Your task to perform on an android device: turn notification dots off Image 0: 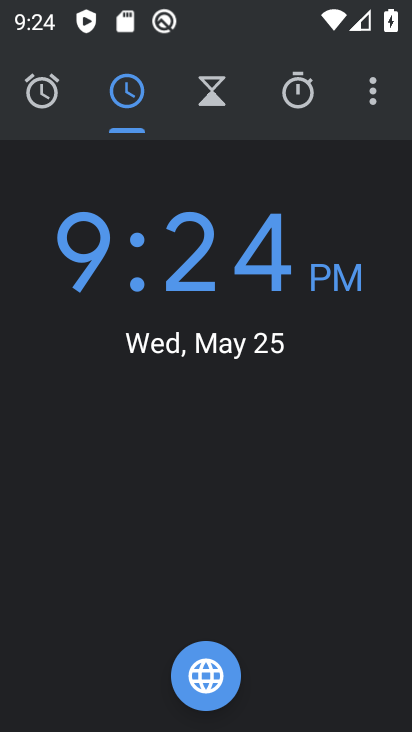
Step 0: press back button
Your task to perform on an android device: turn notification dots off Image 1: 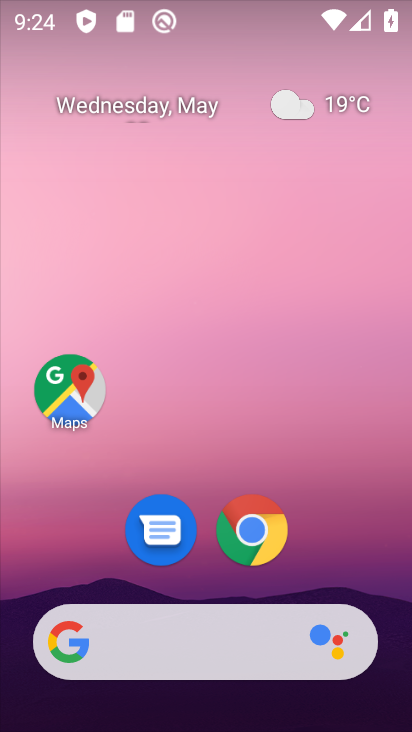
Step 1: drag from (238, 704) to (96, 92)
Your task to perform on an android device: turn notification dots off Image 2: 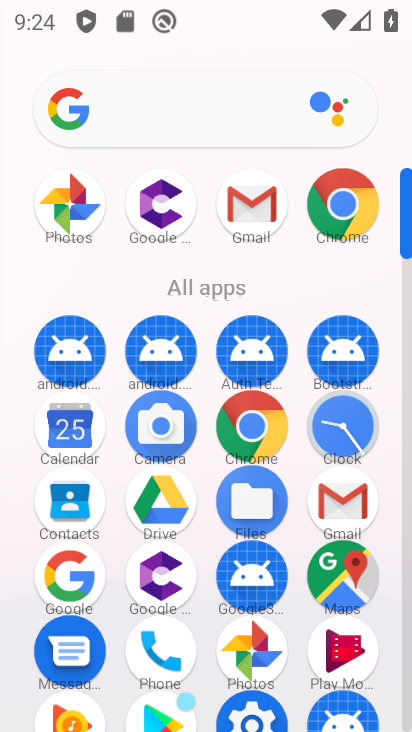
Step 2: drag from (275, 431) to (253, 218)
Your task to perform on an android device: turn notification dots off Image 3: 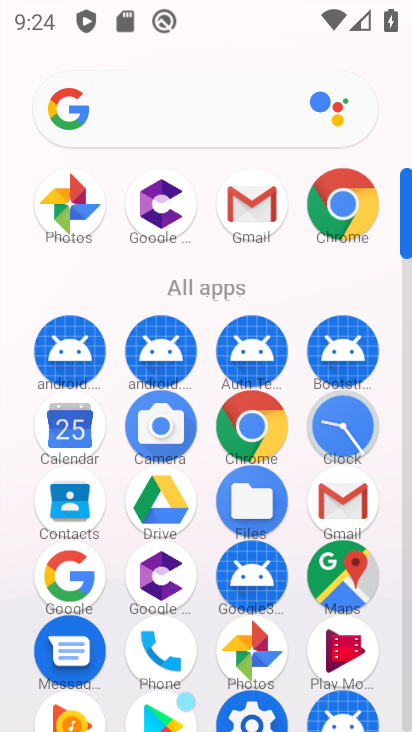
Step 3: drag from (285, 543) to (269, 201)
Your task to perform on an android device: turn notification dots off Image 4: 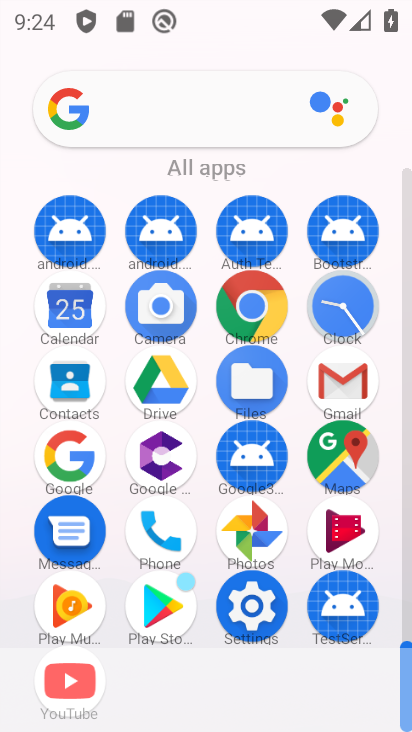
Step 4: drag from (276, 406) to (260, 197)
Your task to perform on an android device: turn notification dots off Image 5: 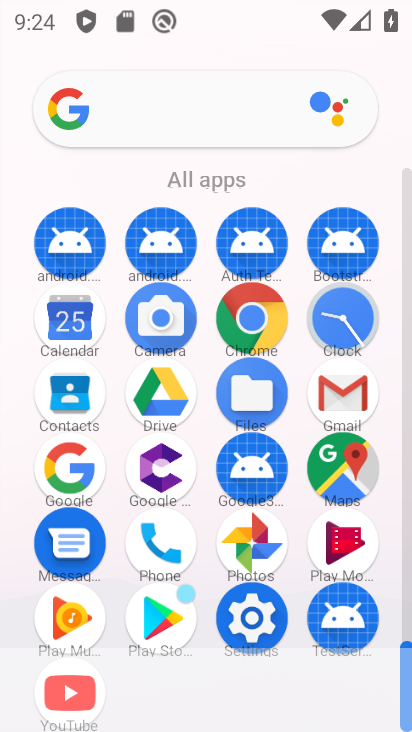
Step 5: click (250, 615)
Your task to perform on an android device: turn notification dots off Image 6: 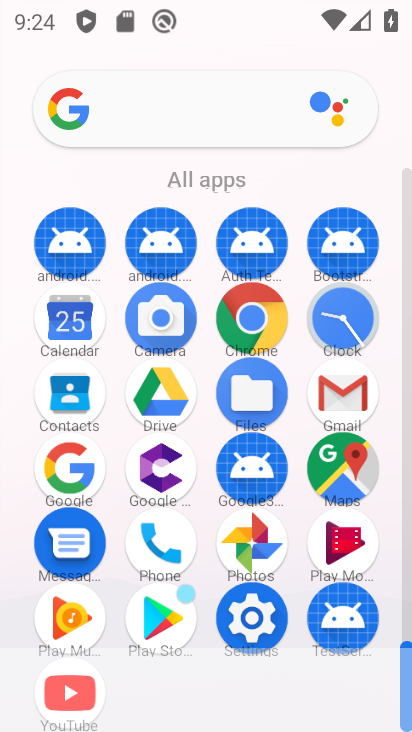
Step 6: click (250, 615)
Your task to perform on an android device: turn notification dots off Image 7: 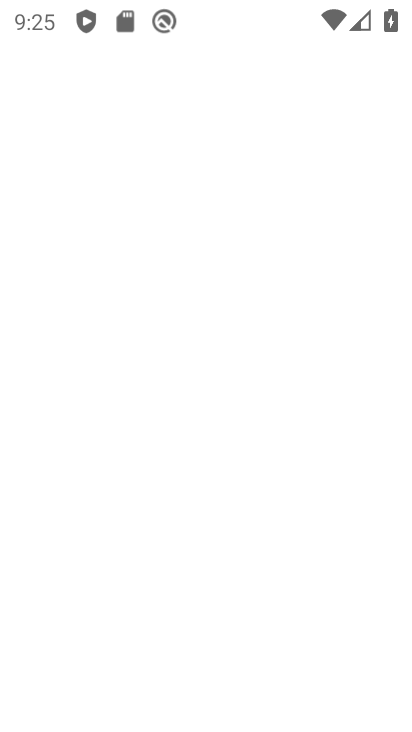
Step 7: click (251, 616)
Your task to perform on an android device: turn notification dots off Image 8: 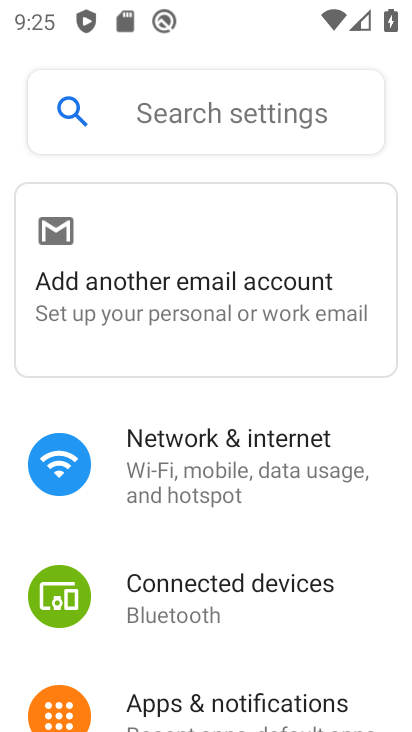
Step 8: drag from (218, 561) to (169, 227)
Your task to perform on an android device: turn notification dots off Image 9: 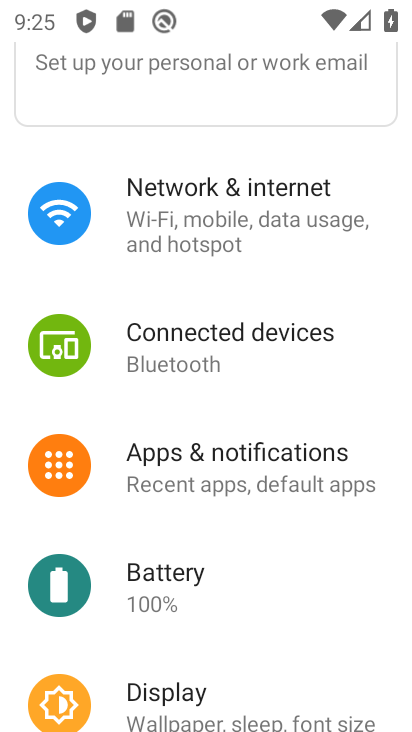
Step 9: drag from (192, 380) to (204, 235)
Your task to perform on an android device: turn notification dots off Image 10: 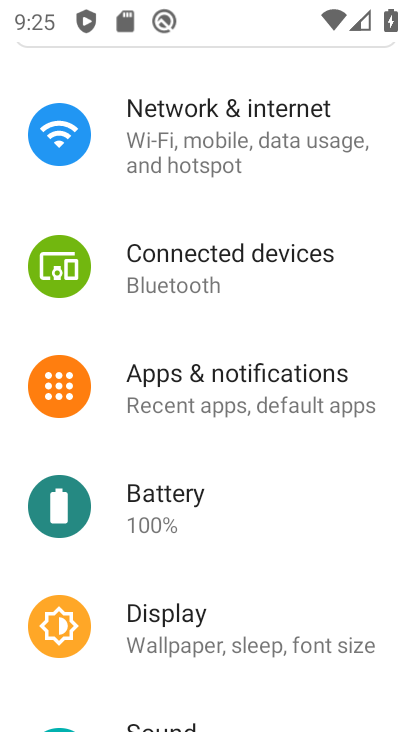
Step 10: click (193, 382)
Your task to perform on an android device: turn notification dots off Image 11: 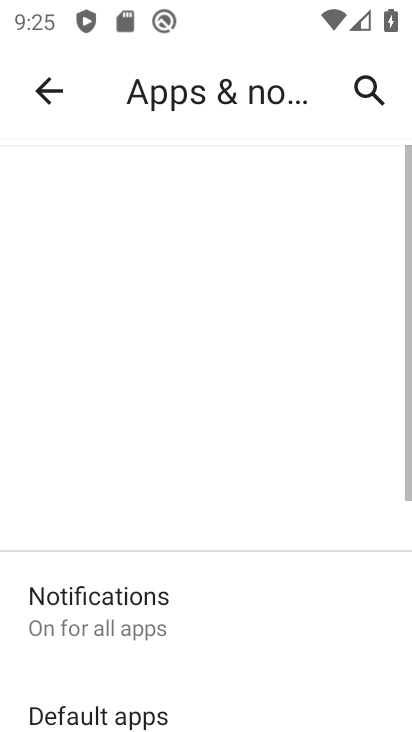
Step 11: drag from (115, 448) to (75, 137)
Your task to perform on an android device: turn notification dots off Image 12: 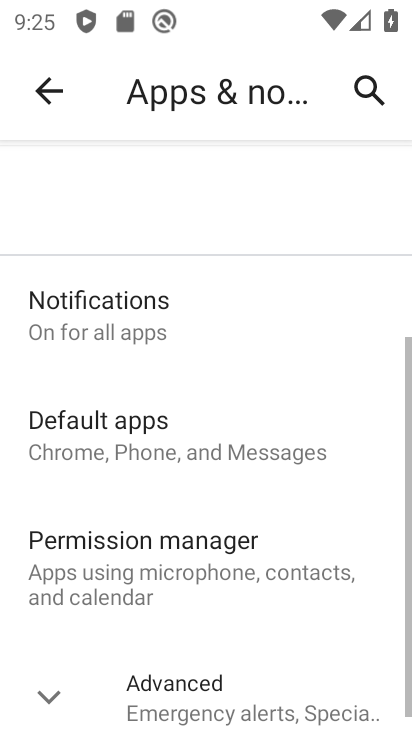
Step 12: click (147, 35)
Your task to perform on an android device: turn notification dots off Image 13: 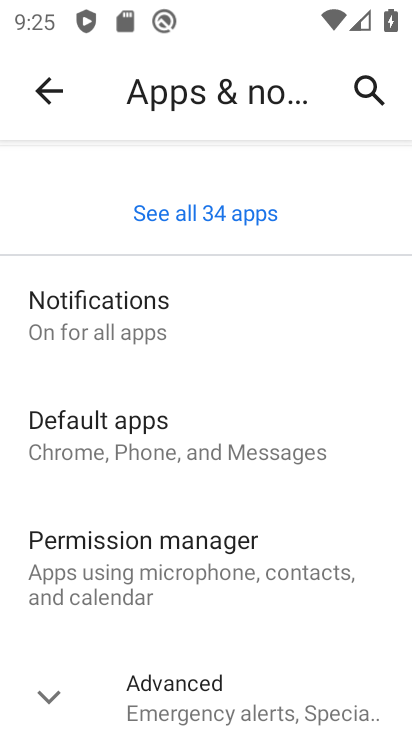
Step 13: click (80, 322)
Your task to perform on an android device: turn notification dots off Image 14: 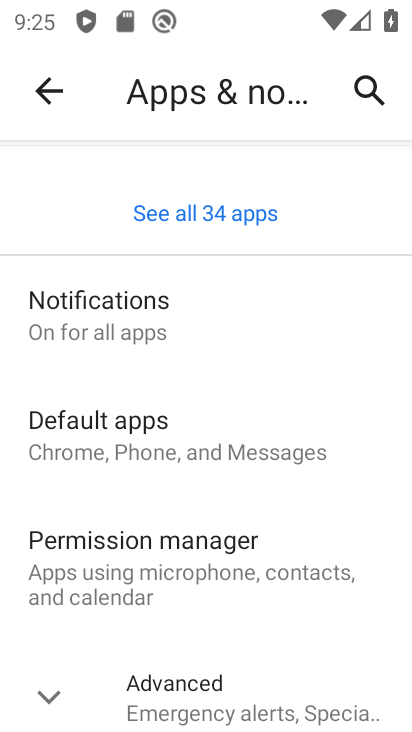
Step 14: click (80, 322)
Your task to perform on an android device: turn notification dots off Image 15: 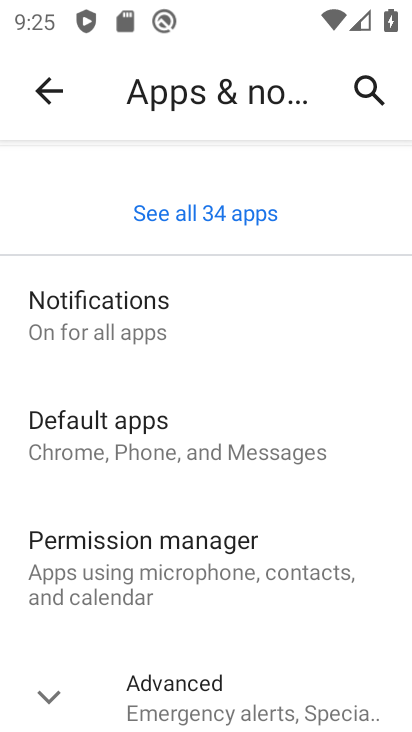
Step 15: click (80, 322)
Your task to perform on an android device: turn notification dots off Image 16: 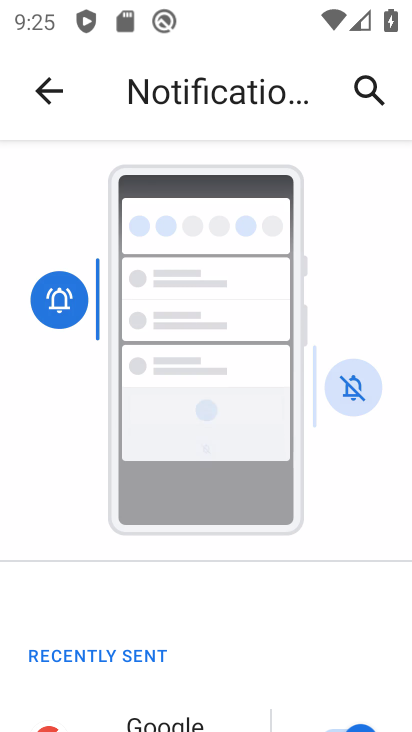
Step 16: drag from (269, 669) to (257, 164)
Your task to perform on an android device: turn notification dots off Image 17: 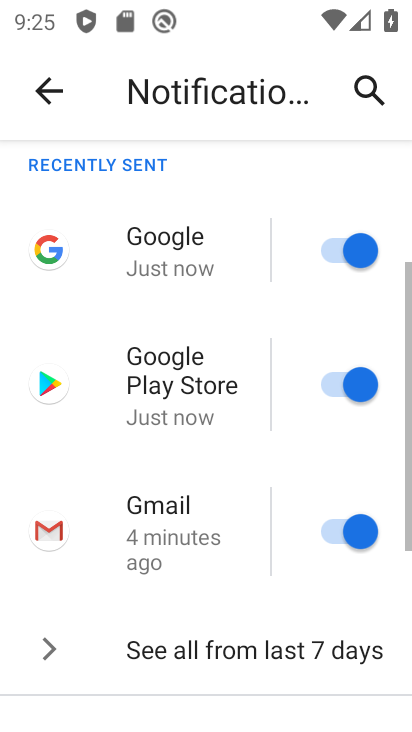
Step 17: drag from (261, 473) to (257, 133)
Your task to perform on an android device: turn notification dots off Image 18: 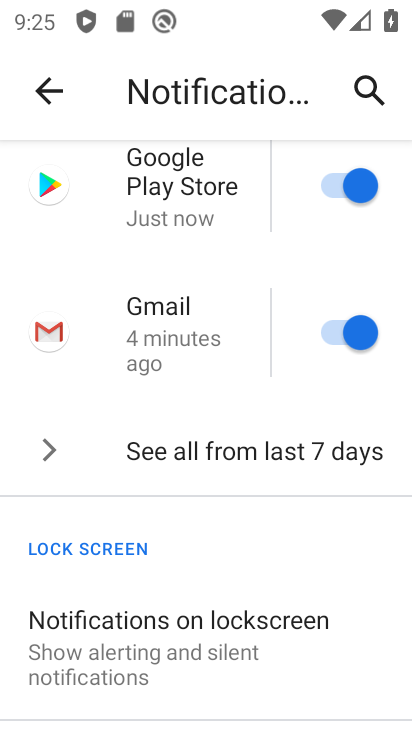
Step 18: drag from (161, 606) to (124, 272)
Your task to perform on an android device: turn notification dots off Image 19: 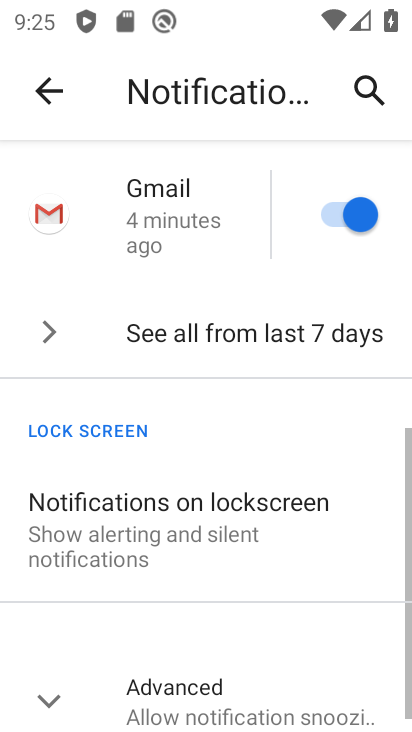
Step 19: drag from (176, 516) to (176, 276)
Your task to perform on an android device: turn notification dots off Image 20: 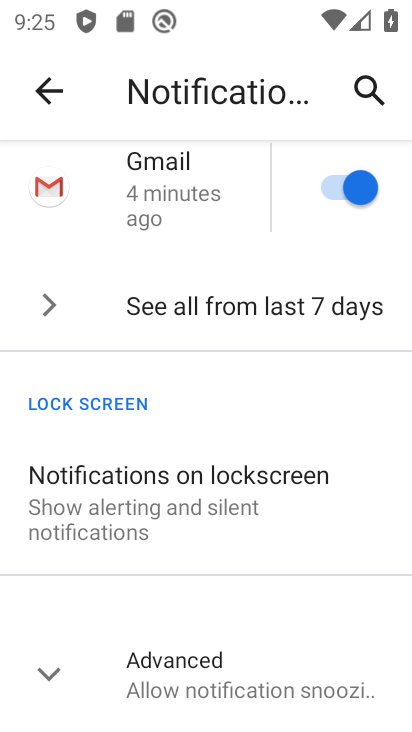
Step 20: click (195, 684)
Your task to perform on an android device: turn notification dots off Image 21: 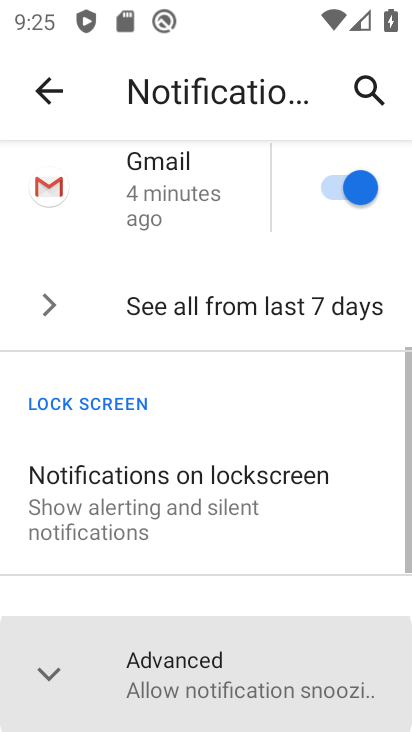
Step 21: click (194, 685)
Your task to perform on an android device: turn notification dots off Image 22: 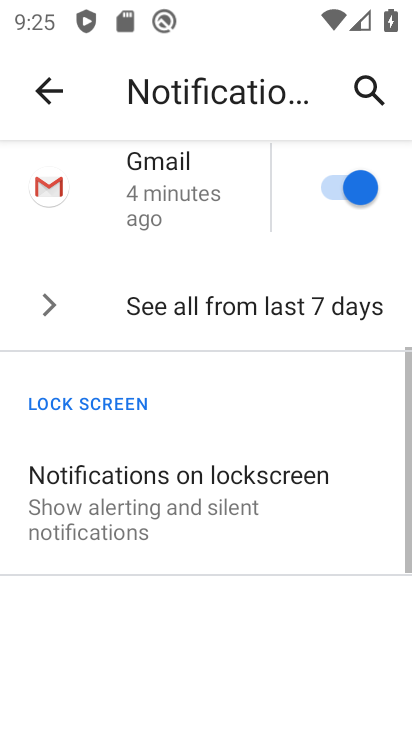
Step 22: click (194, 685)
Your task to perform on an android device: turn notification dots off Image 23: 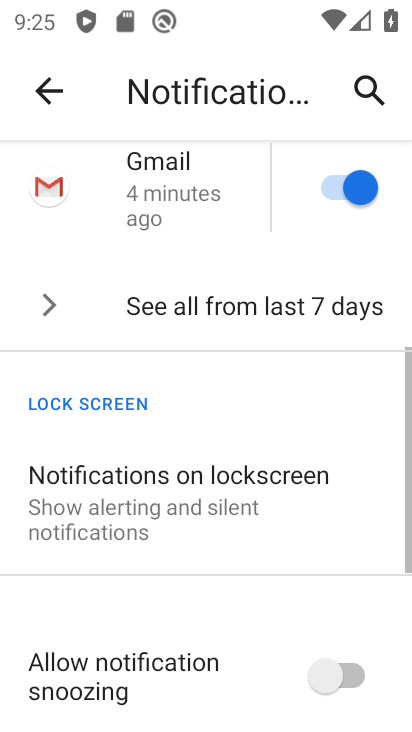
Step 23: click (198, 144)
Your task to perform on an android device: turn notification dots off Image 24: 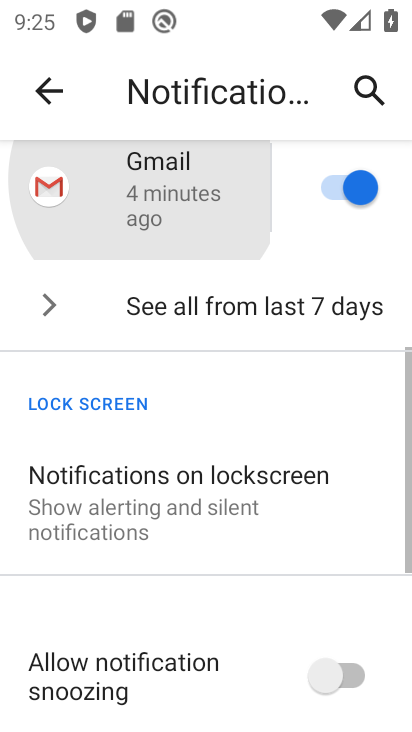
Step 24: drag from (264, 551) to (264, 185)
Your task to perform on an android device: turn notification dots off Image 25: 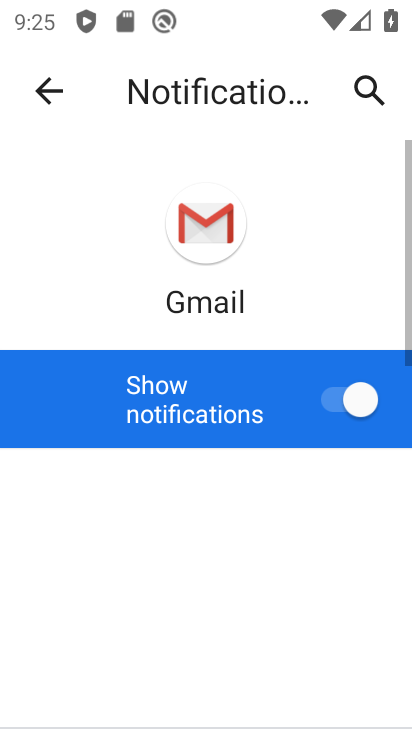
Step 25: drag from (244, 366) to (223, 50)
Your task to perform on an android device: turn notification dots off Image 26: 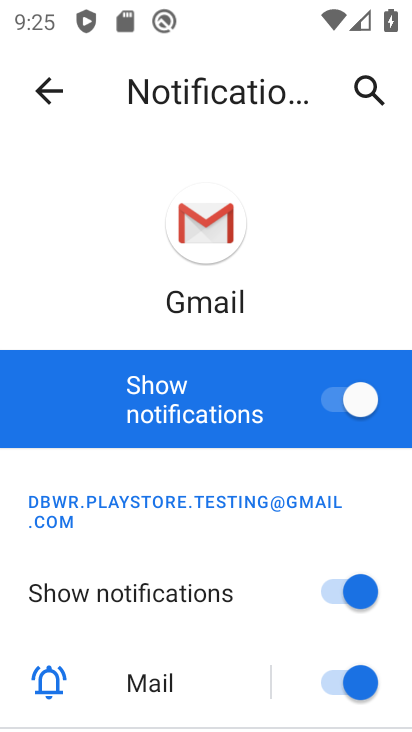
Step 26: click (46, 88)
Your task to perform on an android device: turn notification dots off Image 27: 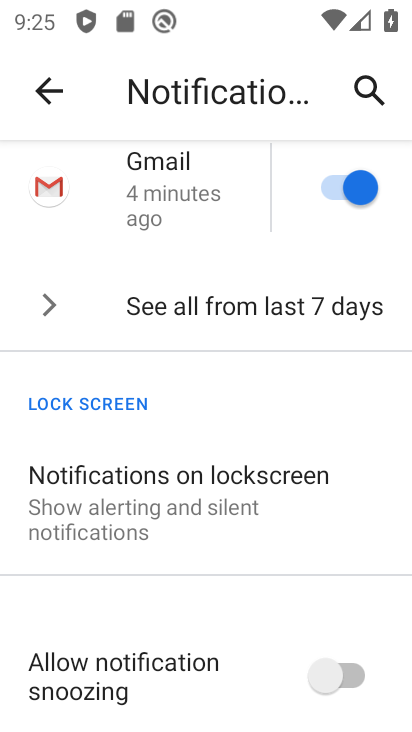
Step 27: drag from (209, 535) to (111, 115)
Your task to perform on an android device: turn notification dots off Image 28: 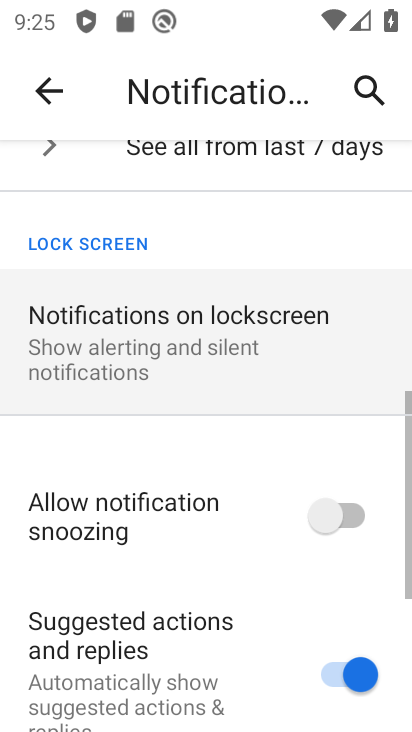
Step 28: drag from (120, 470) to (139, 124)
Your task to perform on an android device: turn notification dots off Image 29: 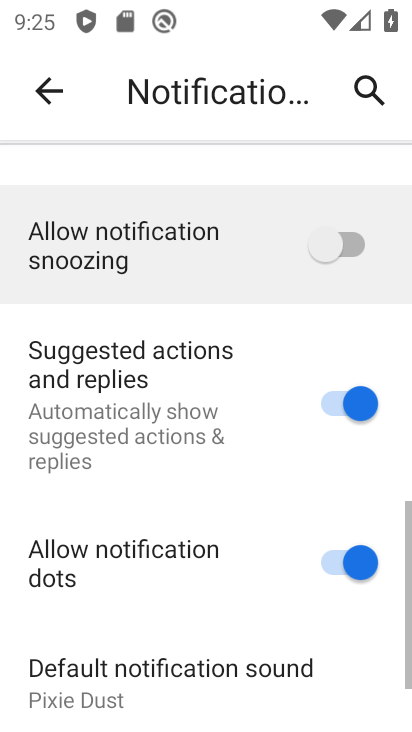
Step 29: drag from (186, 448) to (243, 0)
Your task to perform on an android device: turn notification dots off Image 30: 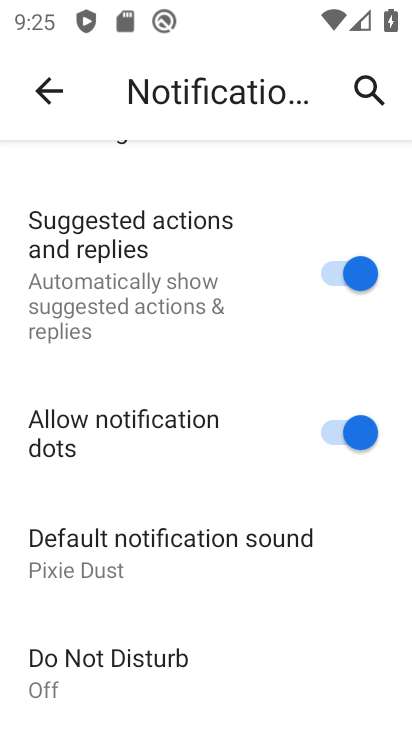
Step 30: click (34, 104)
Your task to perform on an android device: turn notification dots off Image 31: 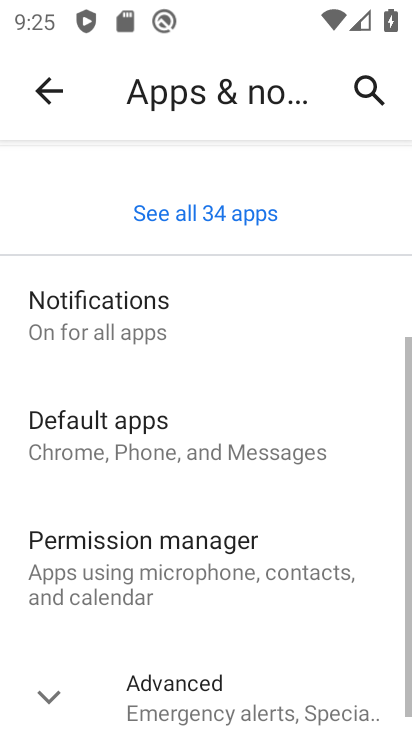
Step 31: click (371, 435)
Your task to perform on an android device: turn notification dots off Image 32: 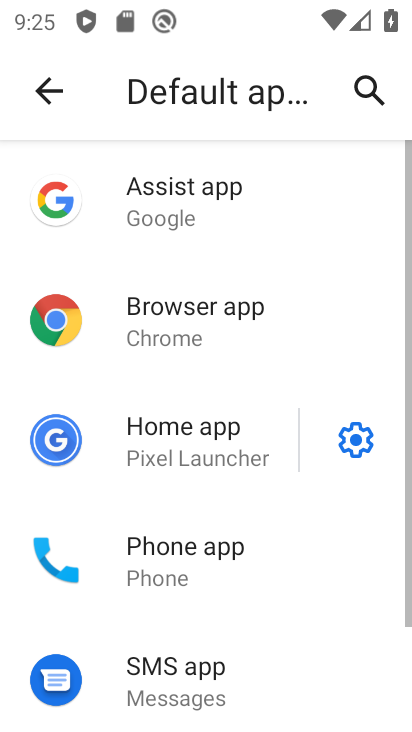
Step 32: click (59, 87)
Your task to perform on an android device: turn notification dots off Image 33: 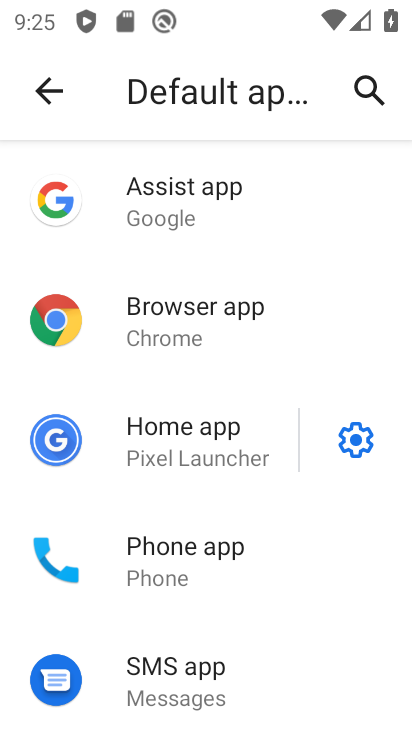
Step 33: click (35, 106)
Your task to perform on an android device: turn notification dots off Image 34: 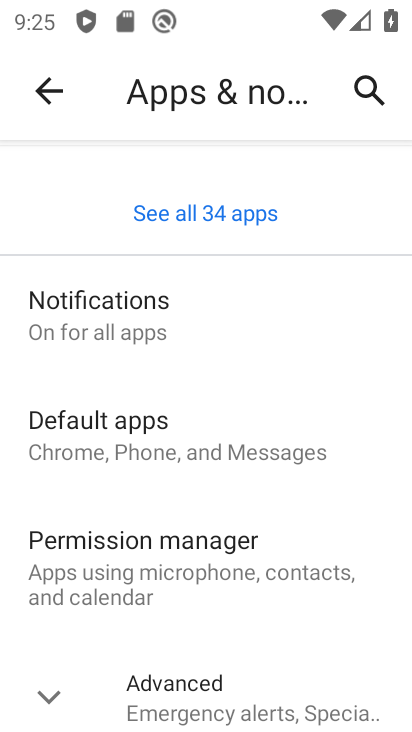
Step 34: drag from (190, 605) to (186, 285)
Your task to perform on an android device: turn notification dots off Image 35: 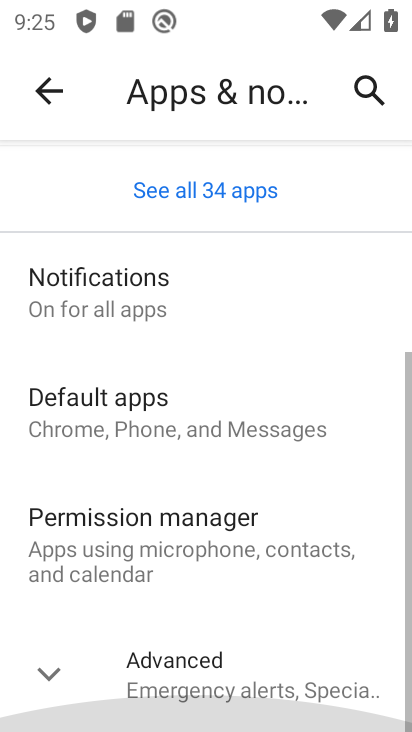
Step 35: drag from (213, 446) to (192, 264)
Your task to perform on an android device: turn notification dots off Image 36: 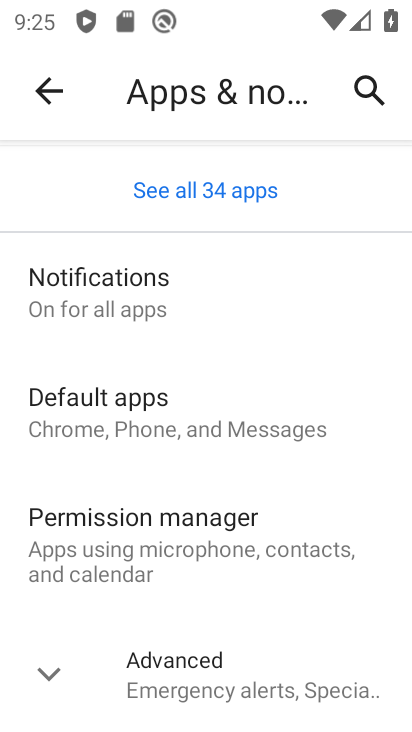
Step 36: click (80, 295)
Your task to perform on an android device: turn notification dots off Image 37: 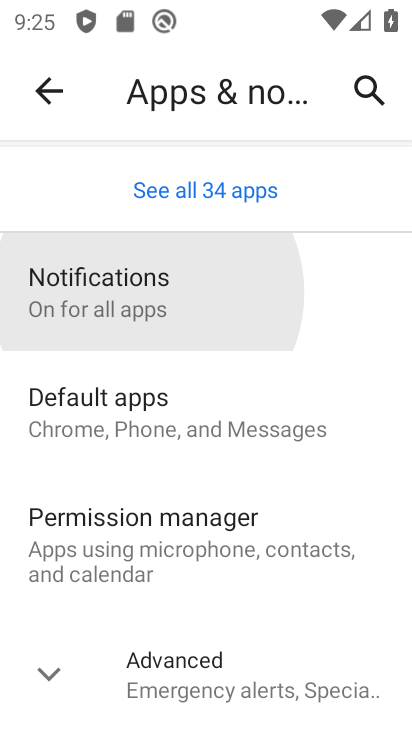
Step 37: click (82, 295)
Your task to perform on an android device: turn notification dots off Image 38: 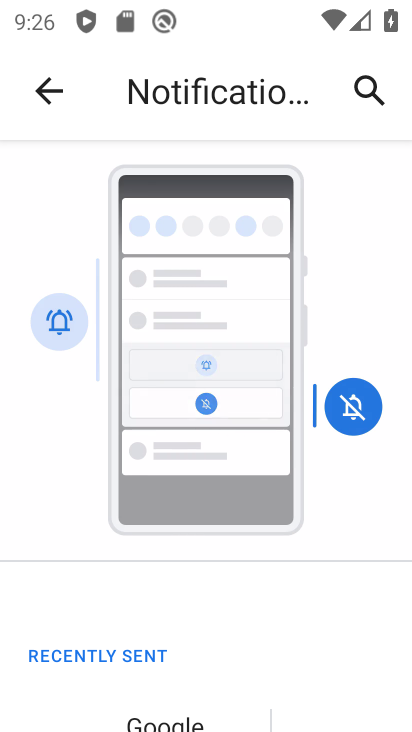
Step 38: drag from (155, 339) to (166, 89)
Your task to perform on an android device: turn notification dots off Image 39: 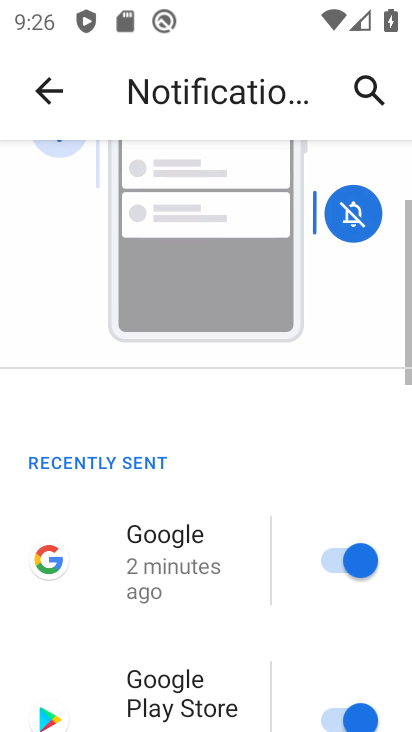
Step 39: drag from (122, 453) to (101, 108)
Your task to perform on an android device: turn notification dots off Image 40: 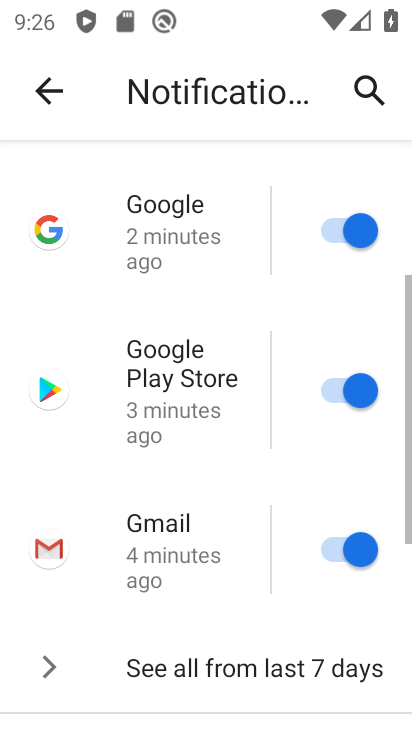
Step 40: drag from (184, 588) to (175, 150)
Your task to perform on an android device: turn notification dots off Image 41: 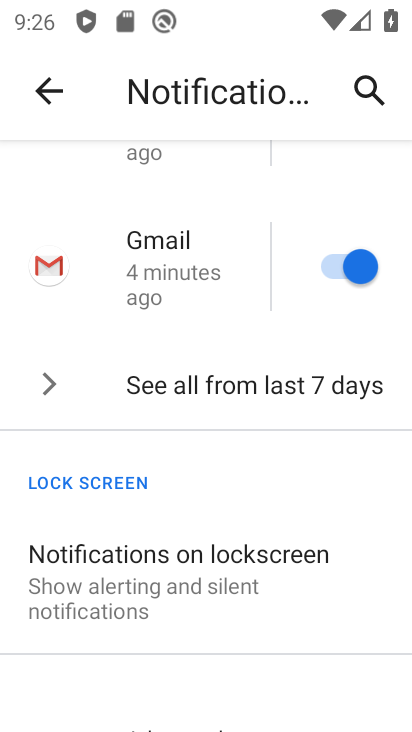
Step 41: drag from (138, 527) to (61, 141)
Your task to perform on an android device: turn notification dots off Image 42: 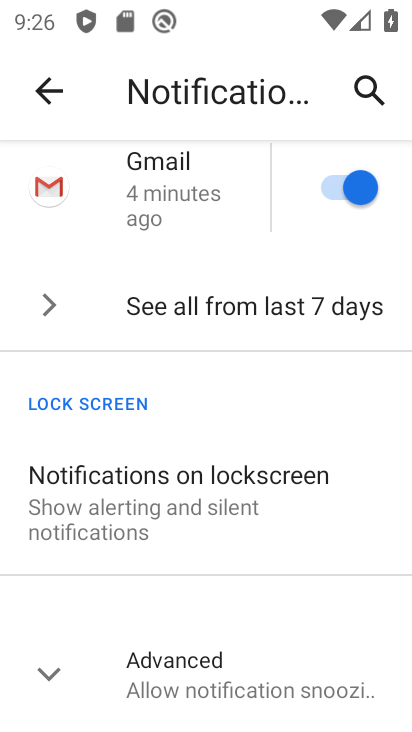
Step 42: drag from (244, 428) to (227, 76)
Your task to perform on an android device: turn notification dots off Image 43: 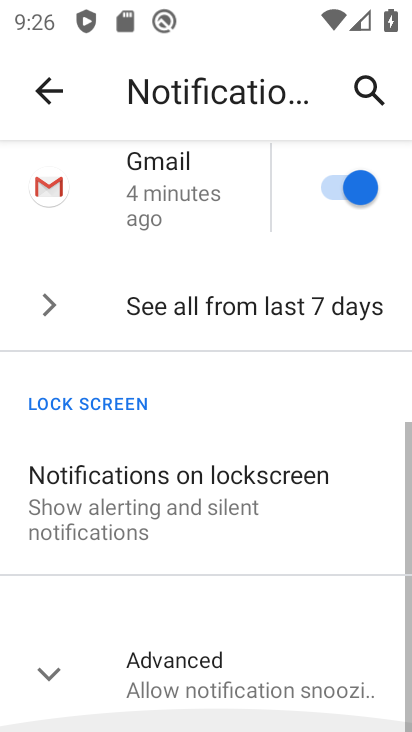
Step 43: drag from (230, 549) to (227, 146)
Your task to perform on an android device: turn notification dots off Image 44: 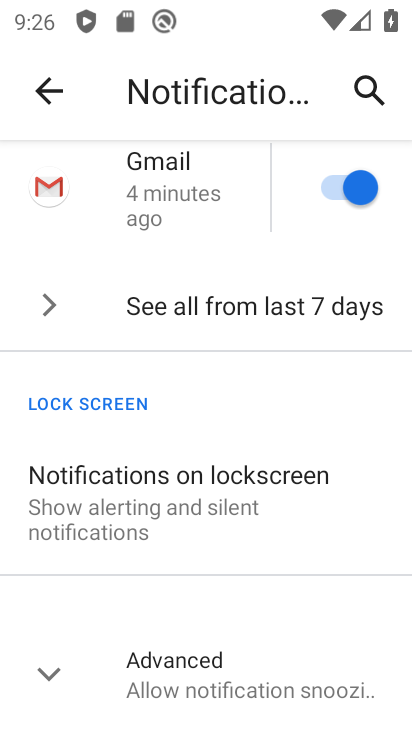
Step 44: click (199, 669)
Your task to perform on an android device: turn notification dots off Image 45: 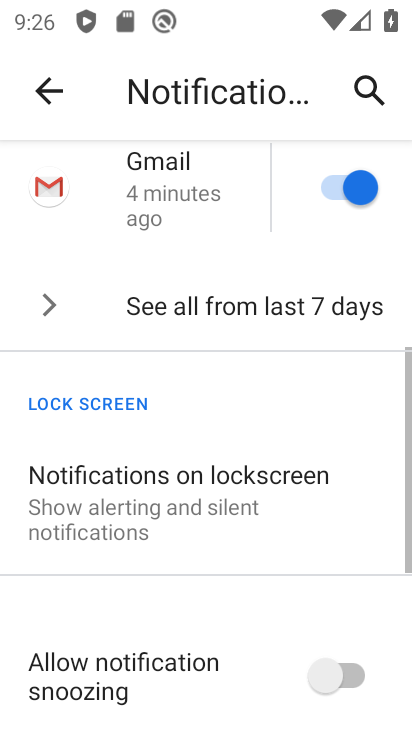
Step 45: drag from (256, 511) to (205, 108)
Your task to perform on an android device: turn notification dots off Image 46: 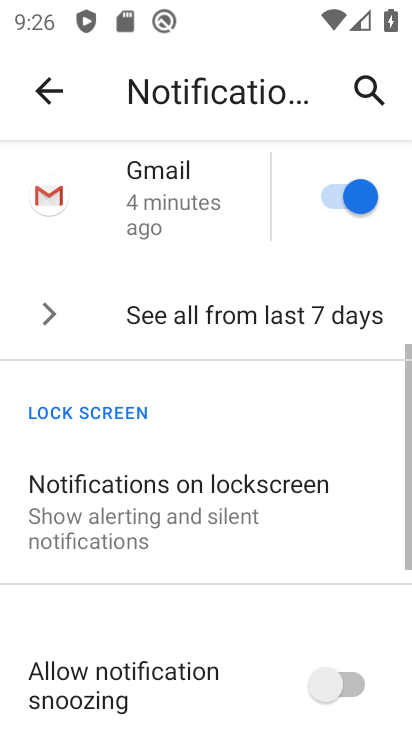
Step 46: drag from (168, 522) to (166, 169)
Your task to perform on an android device: turn notification dots off Image 47: 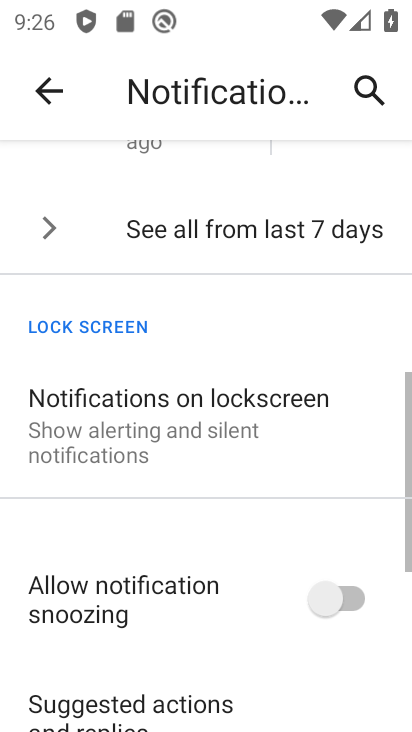
Step 47: drag from (148, 528) to (152, 94)
Your task to perform on an android device: turn notification dots off Image 48: 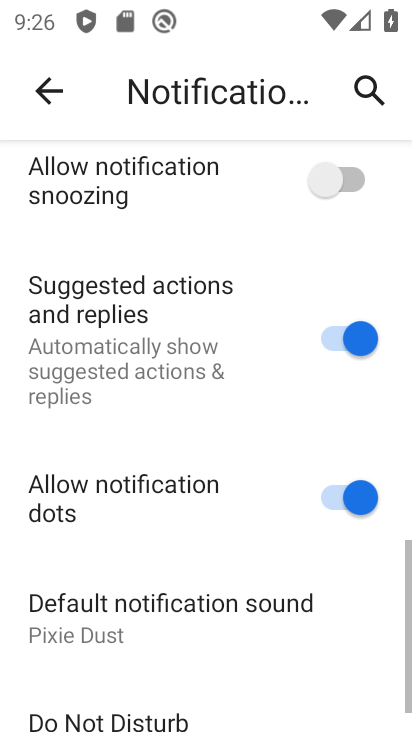
Step 48: drag from (180, 544) to (200, 205)
Your task to perform on an android device: turn notification dots off Image 49: 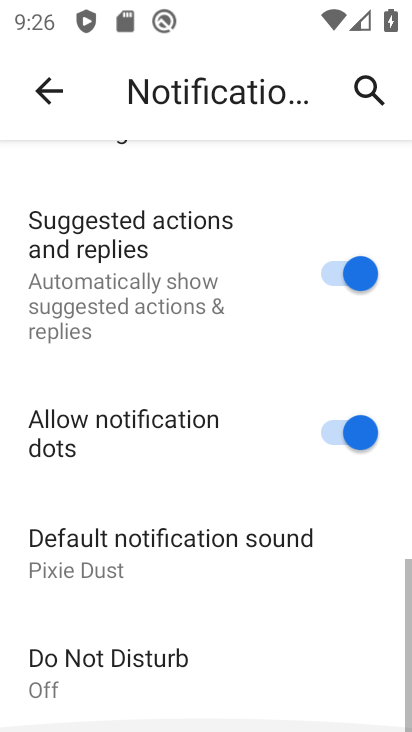
Step 49: click (241, 148)
Your task to perform on an android device: turn notification dots off Image 50: 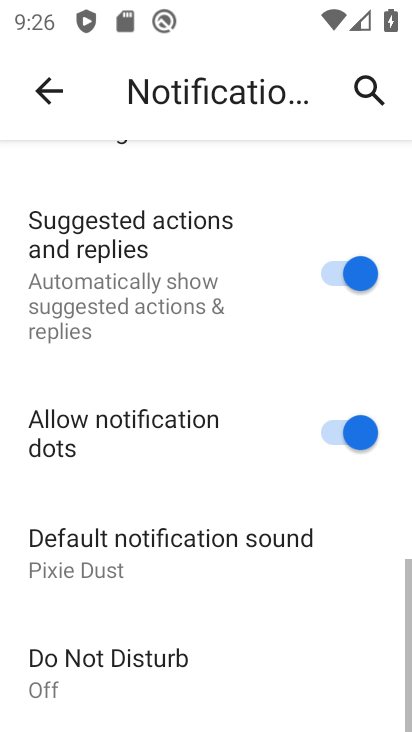
Step 50: drag from (186, 515) to (172, 257)
Your task to perform on an android device: turn notification dots off Image 51: 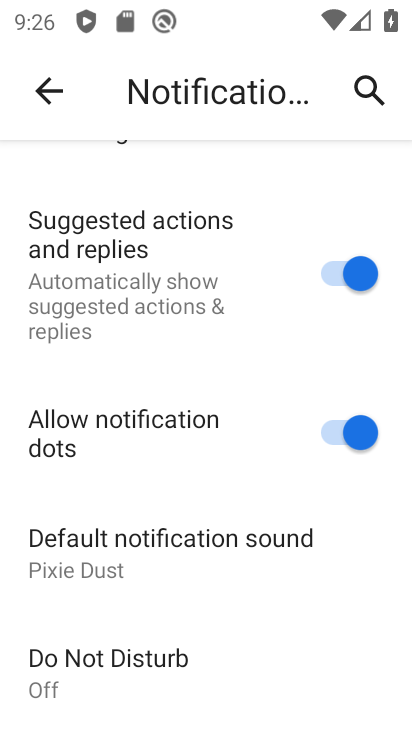
Step 51: drag from (244, 477) to (274, 49)
Your task to perform on an android device: turn notification dots off Image 52: 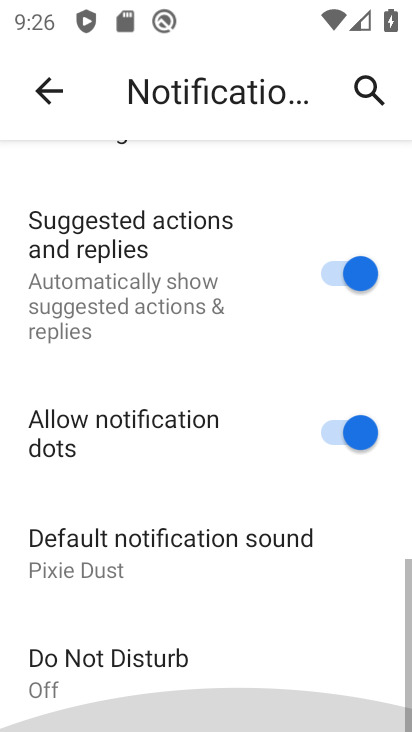
Step 52: drag from (239, 663) to (213, 119)
Your task to perform on an android device: turn notification dots off Image 53: 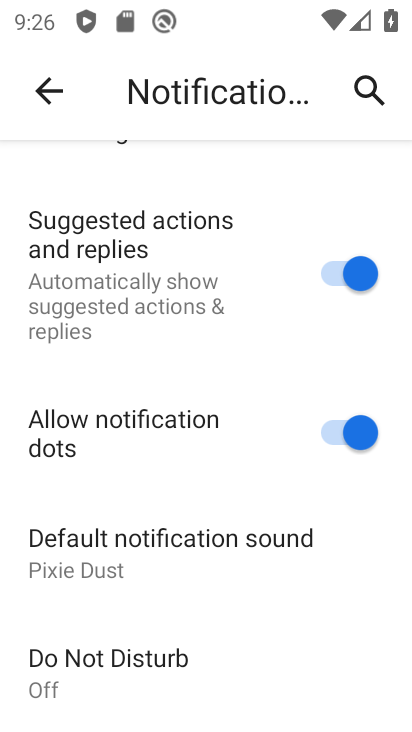
Step 53: click (358, 430)
Your task to perform on an android device: turn notification dots off Image 54: 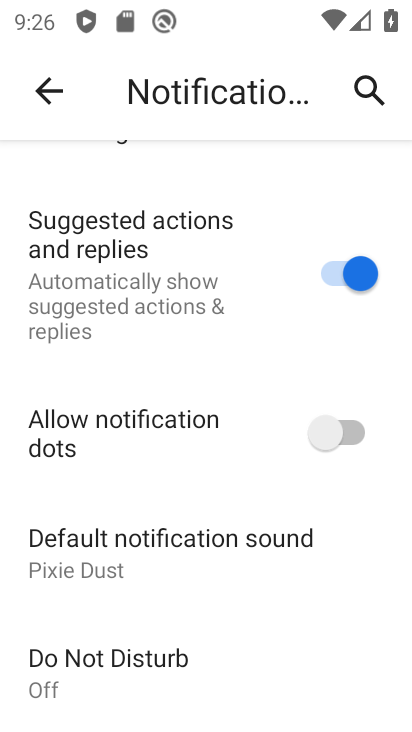
Step 54: task complete